Your task to perform on an android device: Open Chrome and go to settings Image 0: 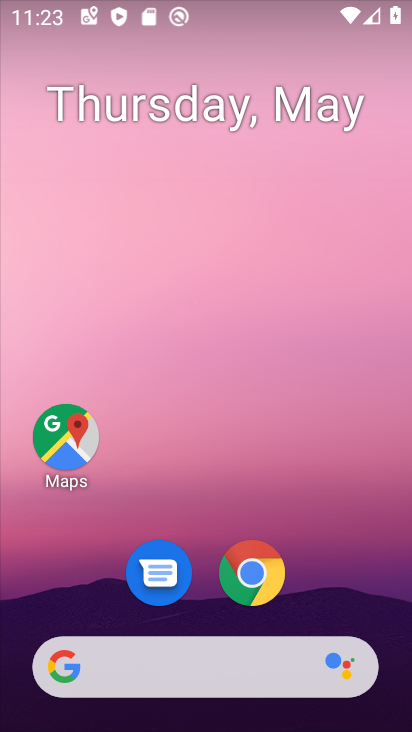
Step 0: click (273, 568)
Your task to perform on an android device: Open Chrome and go to settings Image 1: 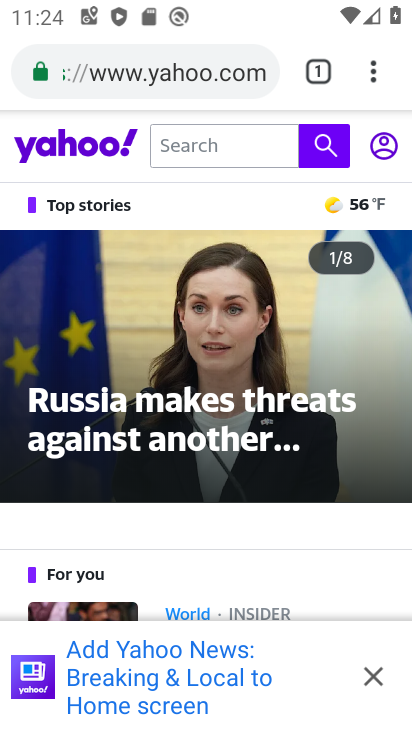
Step 1: click (375, 77)
Your task to perform on an android device: Open Chrome and go to settings Image 2: 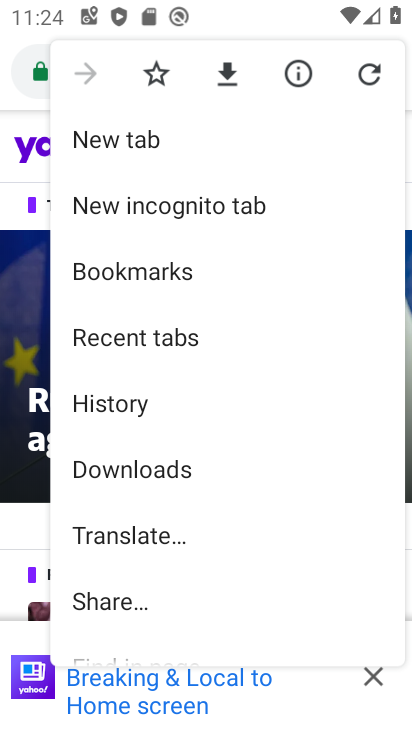
Step 2: drag from (187, 539) to (145, 230)
Your task to perform on an android device: Open Chrome and go to settings Image 3: 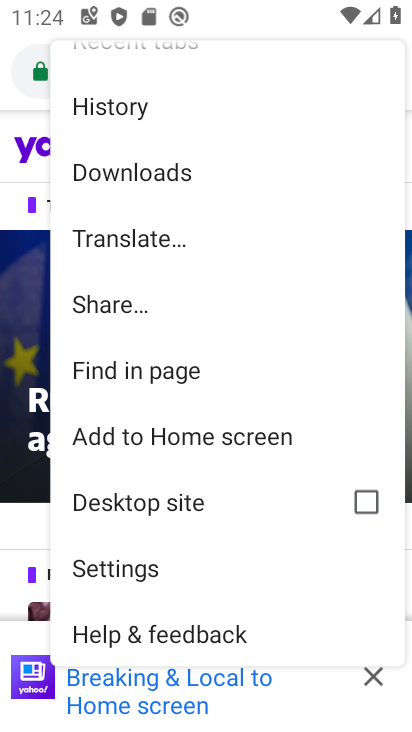
Step 3: click (178, 560)
Your task to perform on an android device: Open Chrome and go to settings Image 4: 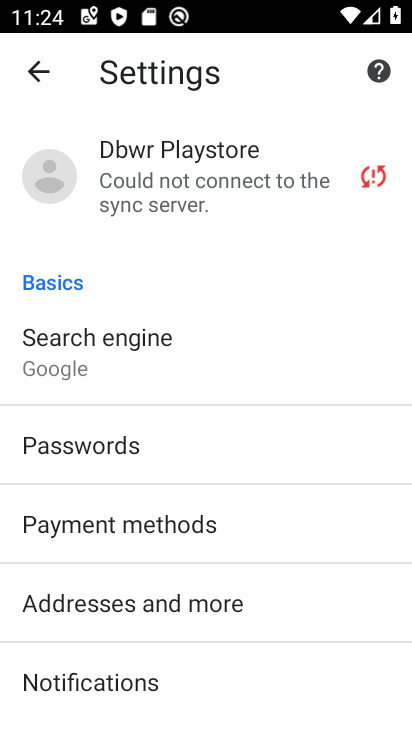
Step 4: task complete